Your task to perform on an android device: turn off wifi Image 0: 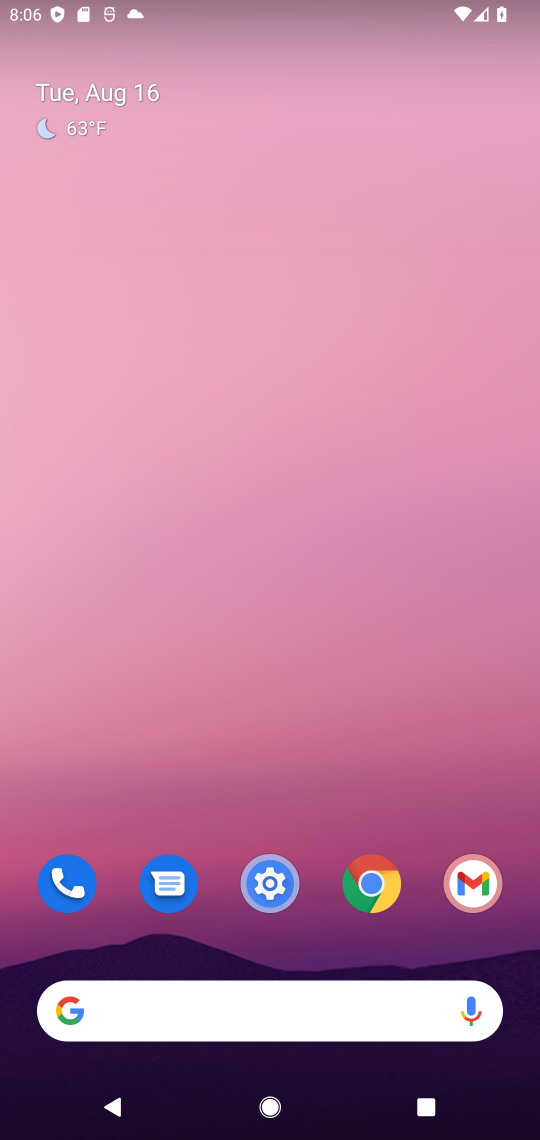
Step 0: drag from (229, 7) to (267, 985)
Your task to perform on an android device: turn off wifi Image 1: 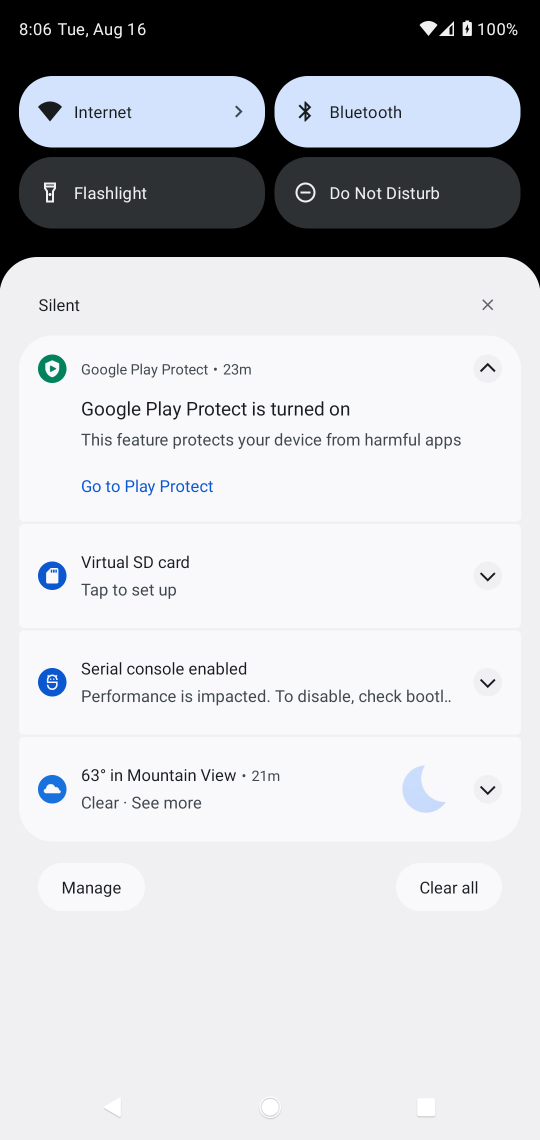
Step 1: click (105, 110)
Your task to perform on an android device: turn off wifi Image 2: 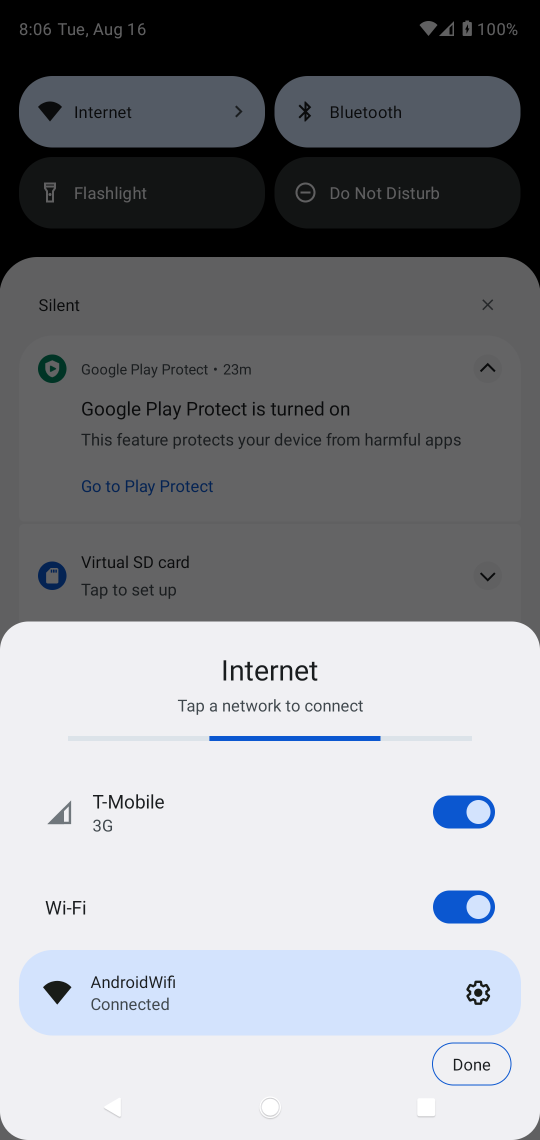
Step 2: click (444, 904)
Your task to perform on an android device: turn off wifi Image 3: 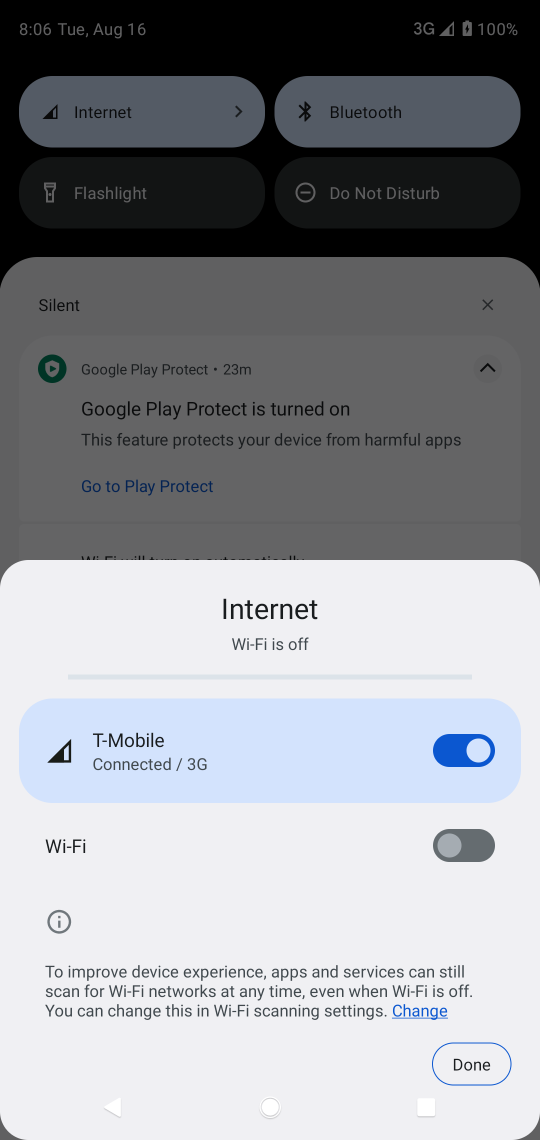
Step 3: task complete